Your task to perform on an android device: Search for sushi restaurants on Maps Image 0: 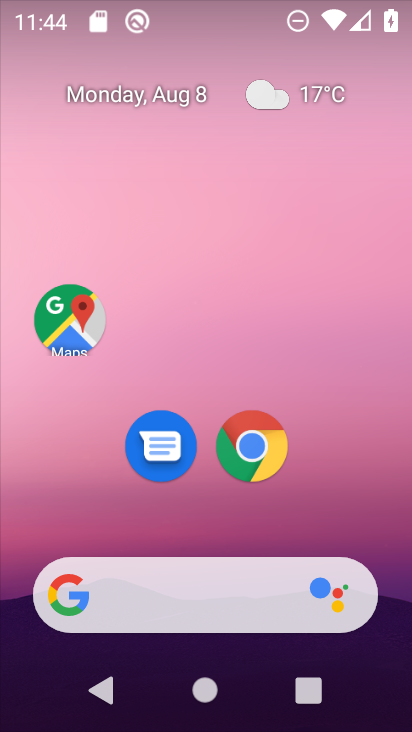
Step 0: click (69, 315)
Your task to perform on an android device: Search for sushi restaurants on Maps Image 1: 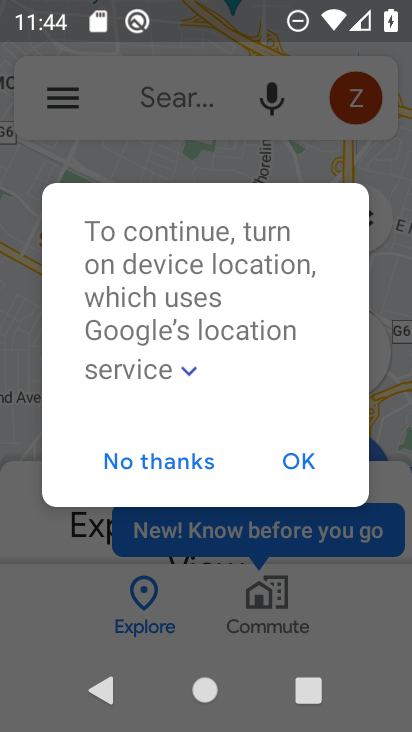
Step 1: click (303, 455)
Your task to perform on an android device: Search for sushi restaurants on Maps Image 2: 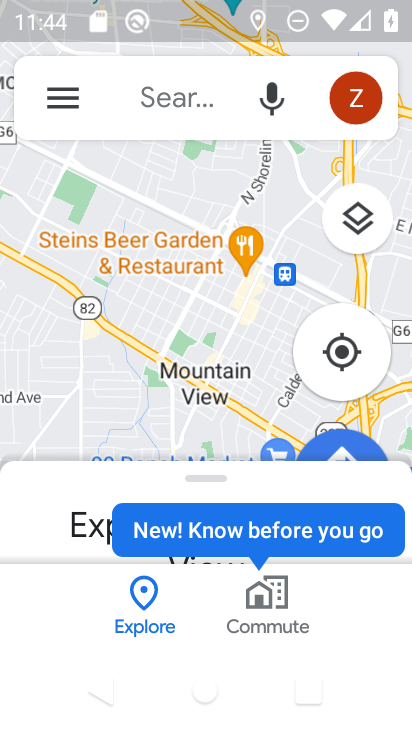
Step 2: click (141, 80)
Your task to perform on an android device: Search for sushi restaurants on Maps Image 3: 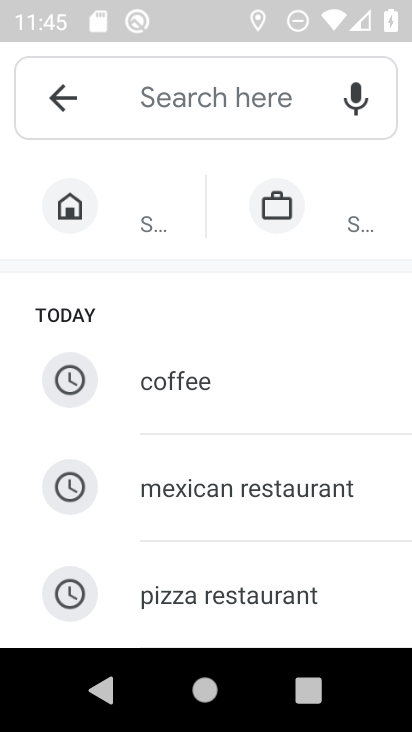
Step 3: type "sushi restaurants"
Your task to perform on an android device: Search for sushi restaurants on Maps Image 4: 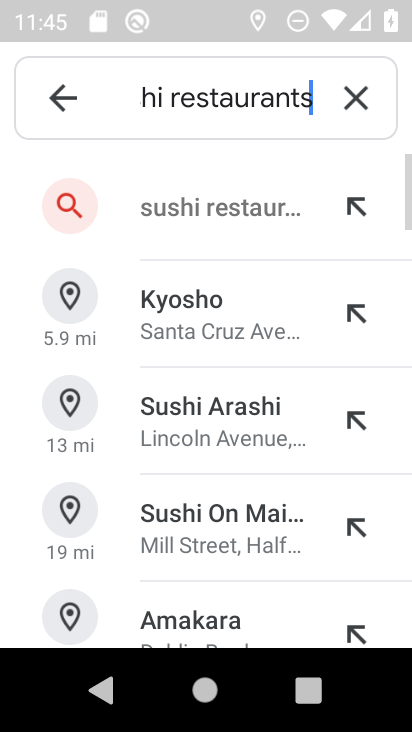
Step 4: click (207, 212)
Your task to perform on an android device: Search for sushi restaurants on Maps Image 5: 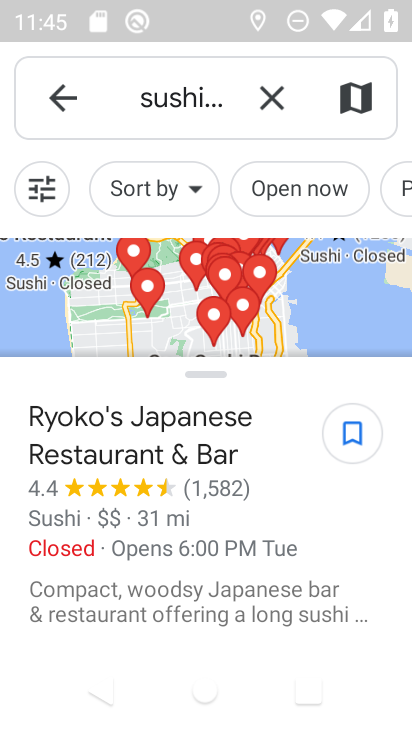
Step 5: task complete